Your task to perform on an android device: toggle javascript in the chrome app Image 0: 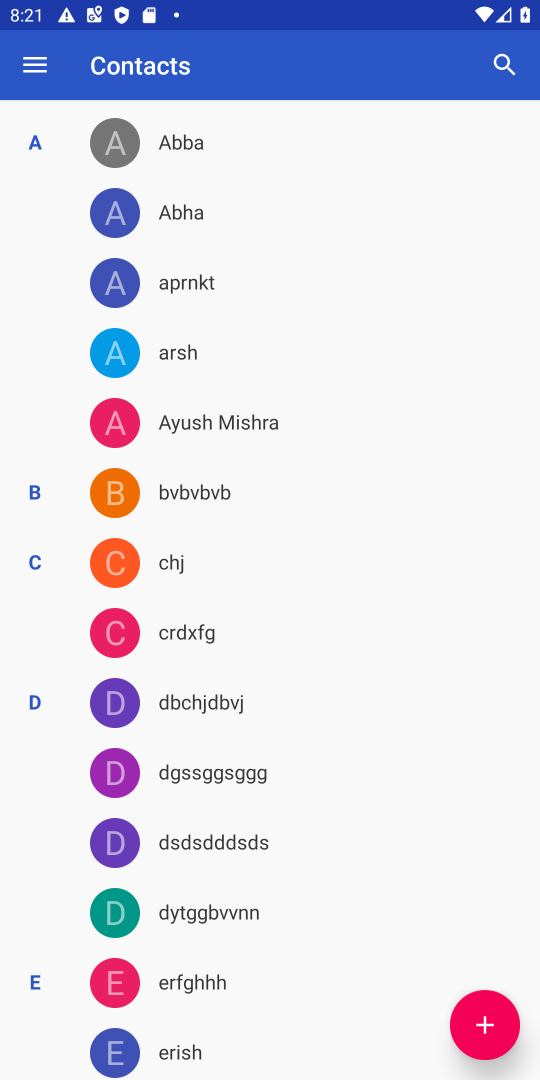
Step 0: press home button
Your task to perform on an android device: toggle javascript in the chrome app Image 1: 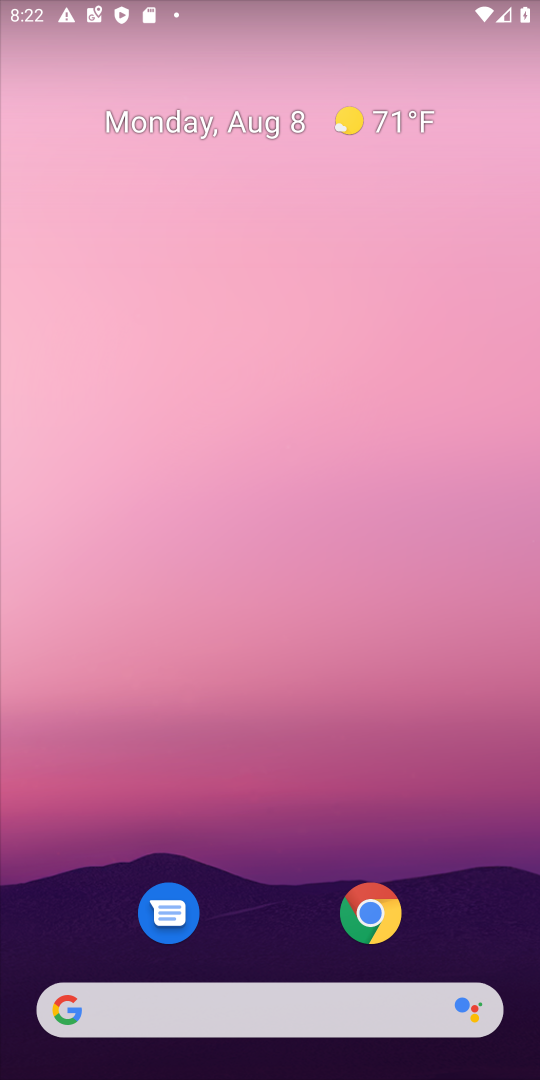
Step 1: click (375, 910)
Your task to perform on an android device: toggle javascript in the chrome app Image 2: 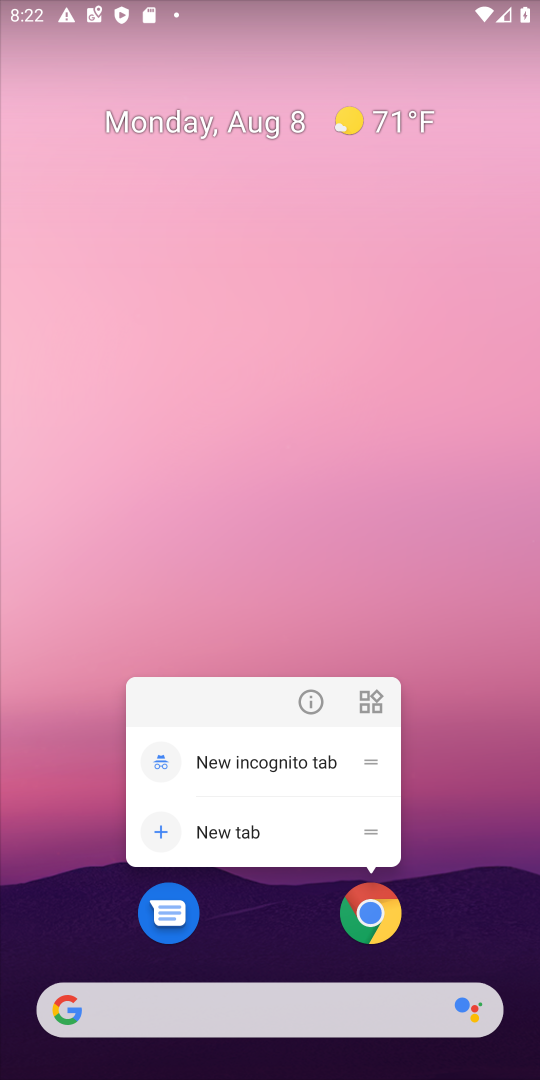
Step 2: click (375, 910)
Your task to perform on an android device: toggle javascript in the chrome app Image 3: 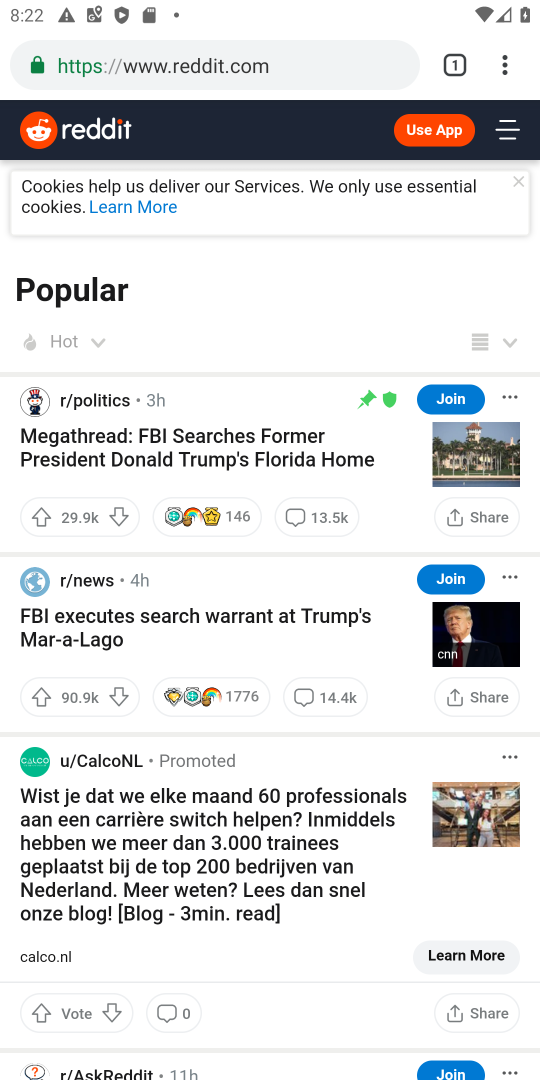
Step 3: click (502, 68)
Your task to perform on an android device: toggle javascript in the chrome app Image 4: 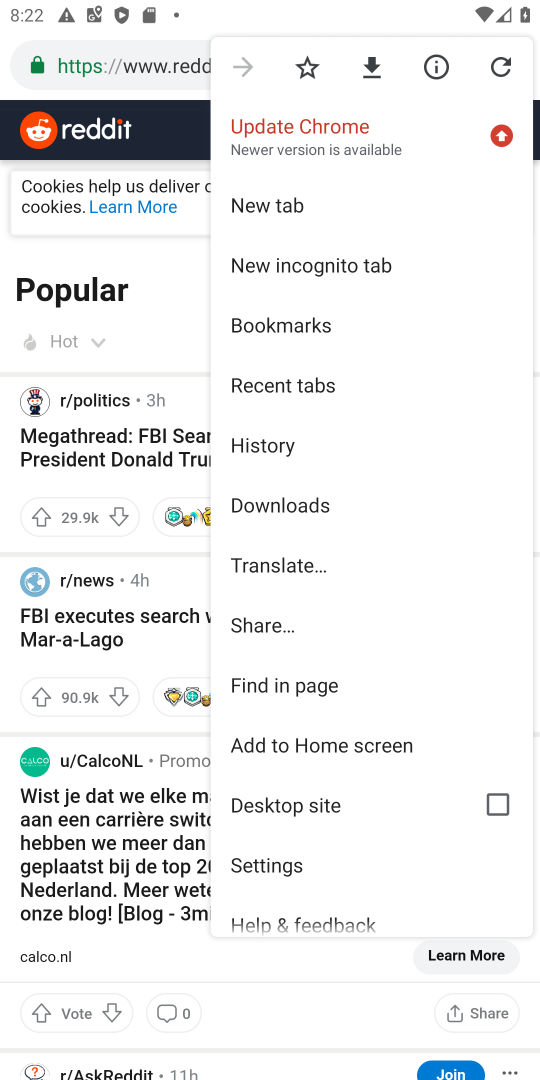
Step 4: click (265, 860)
Your task to perform on an android device: toggle javascript in the chrome app Image 5: 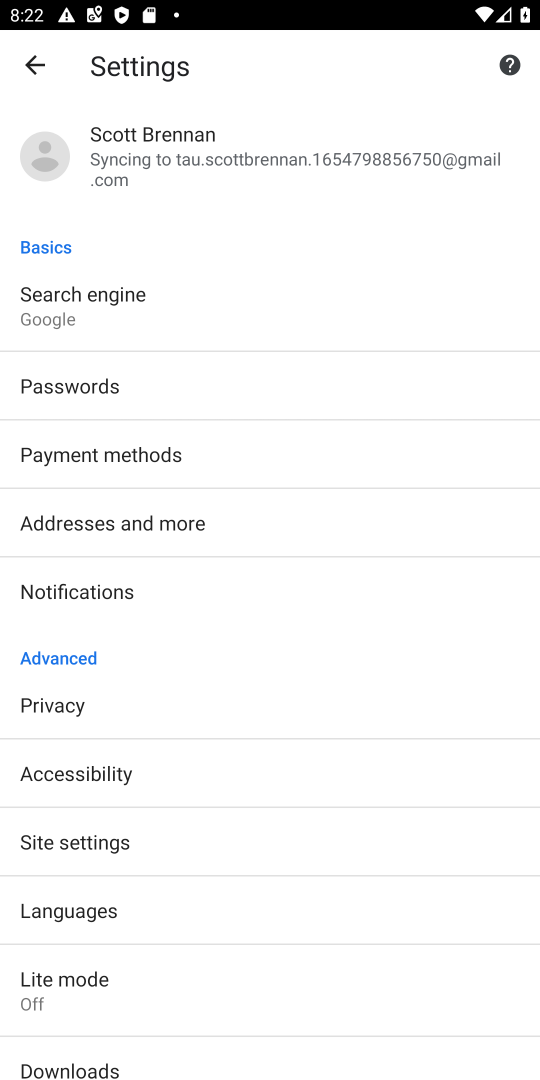
Step 5: click (112, 849)
Your task to perform on an android device: toggle javascript in the chrome app Image 6: 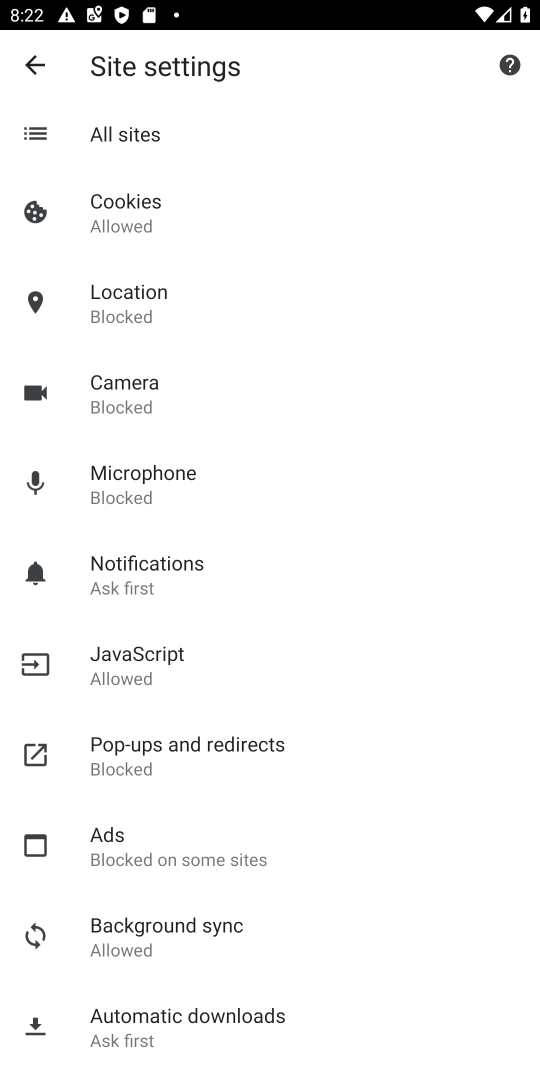
Step 6: click (157, 656)
Your task to perform on an android device: toggle javascript in the chrome app Image 7: 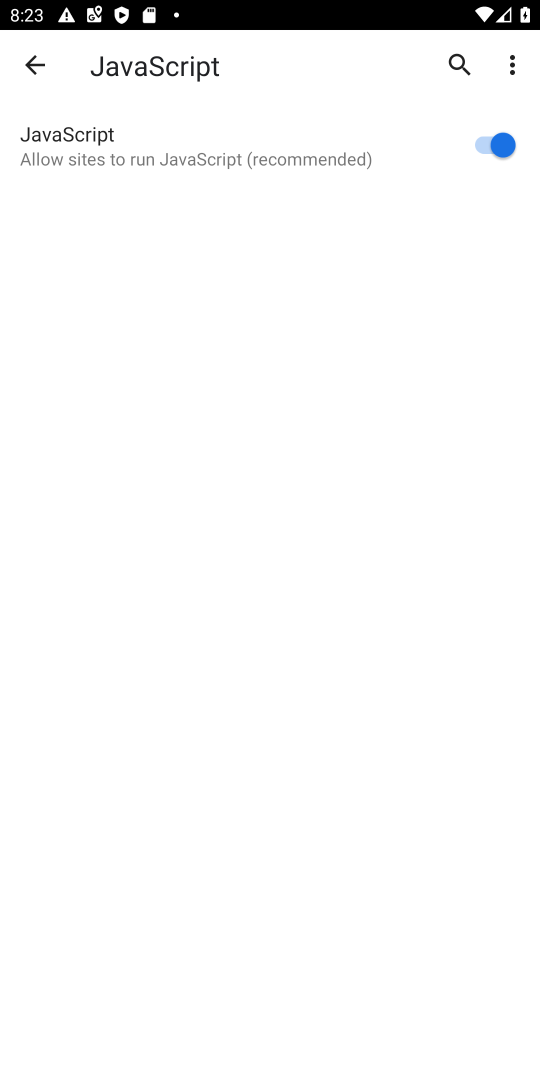
Step 7: click (483, 145)
Your task to perform on an android device: toggle javascript in the chrome app Image 8: 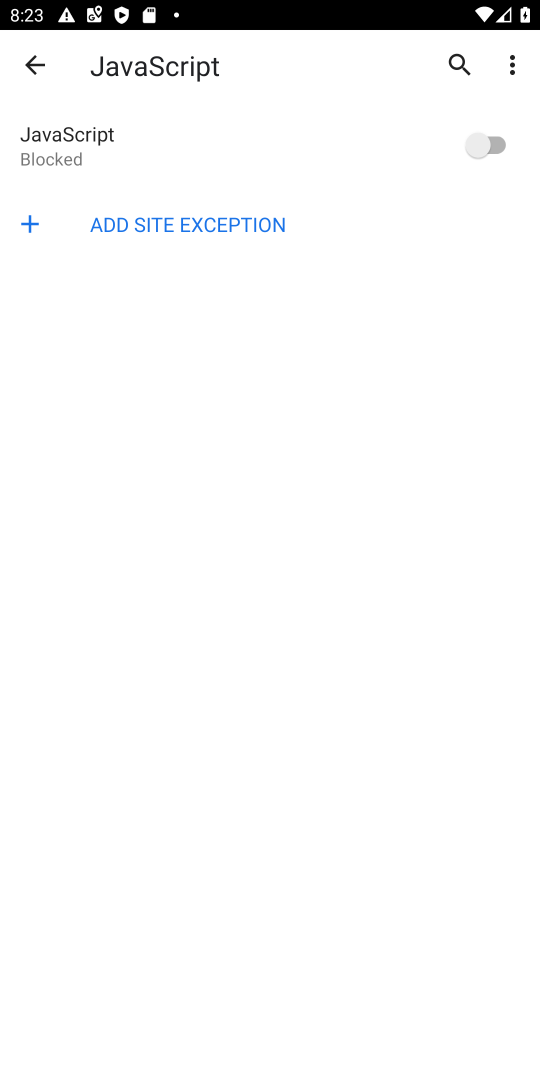
Step 8: task complete